Your task to perform on an android device: open app "Microsoft Excel" (install if not already installed), go to login, and select forgot password Image 0: 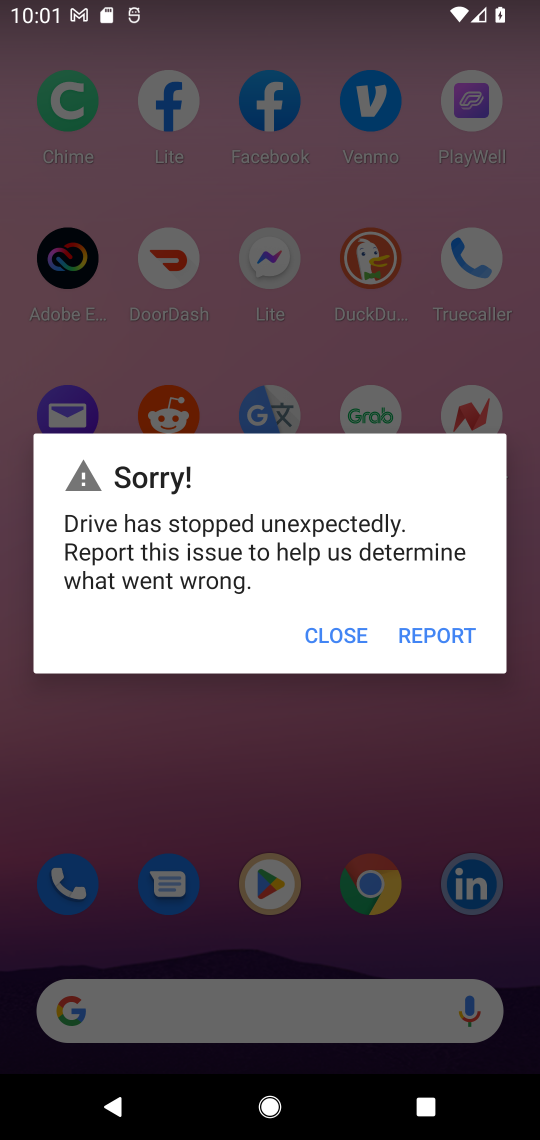
Step 0: click (309, 640)
Your task to perform on an android device: open app "Microsoft Excel" (install if not already installed), go to login, and select forgot password Image 1: 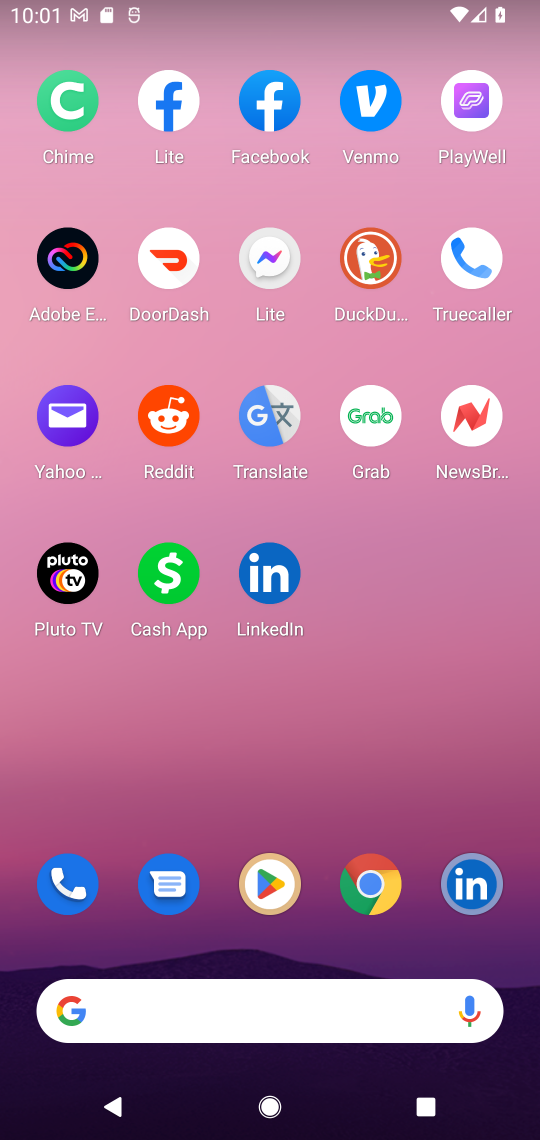
Step 1: click (259, 880)
Your task to perform on an android device: open app "Microsoft Excel" (install if not already installed), go to login, and select forgot password Image 2: 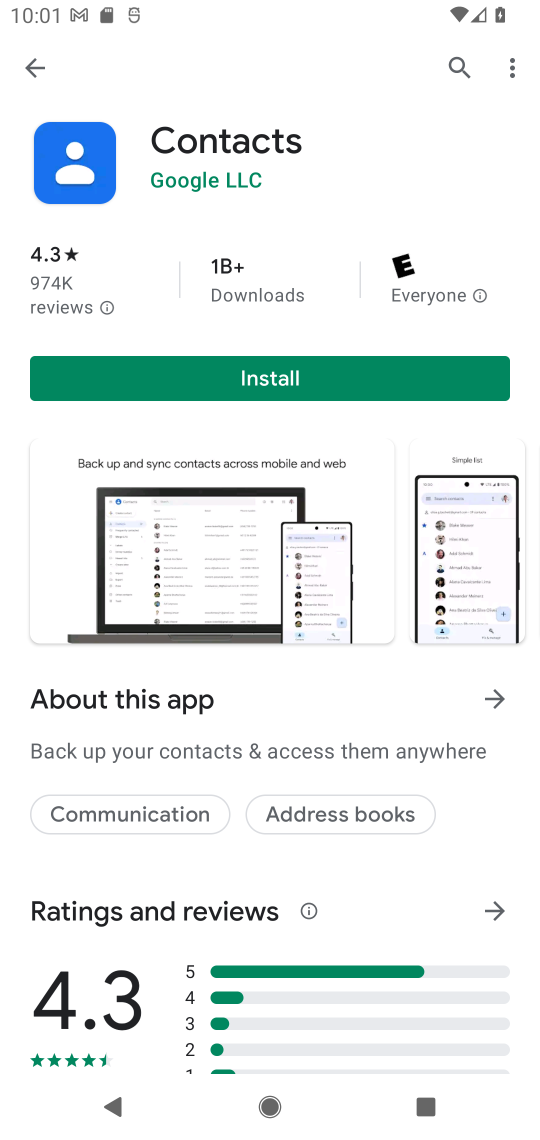
Step 2: click (405, 389)
Your task to perform on an android device: open app "Microsoft Excel" (install if not already installed), go to login, and select forgot password Image 3: 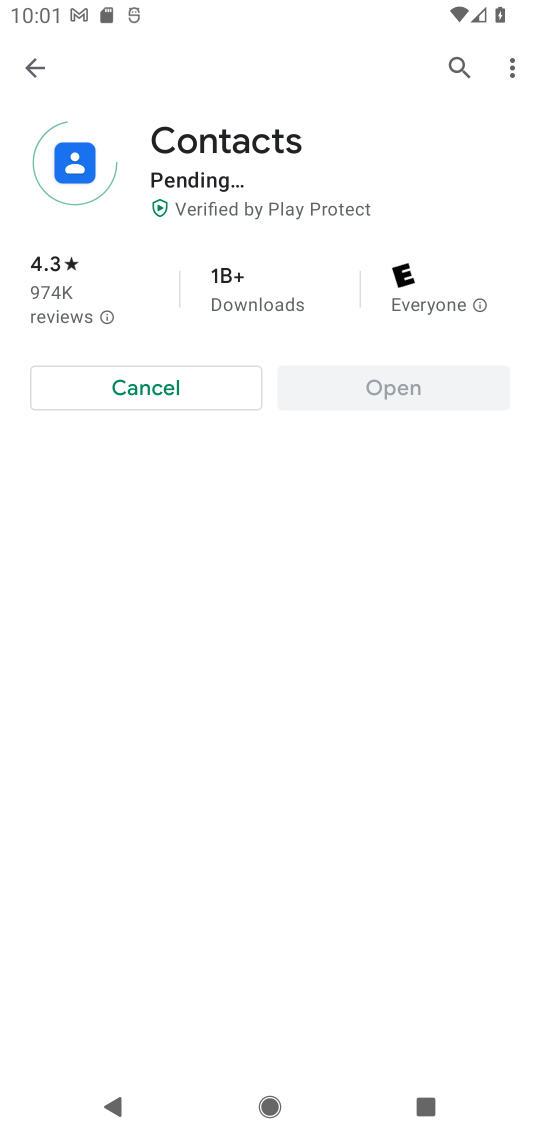
Step 3: click (458, 69)
Your task to perform on an android device: open app "Microsoft Excel" (install if not already installed), go to login, and select forgot password Image 4: 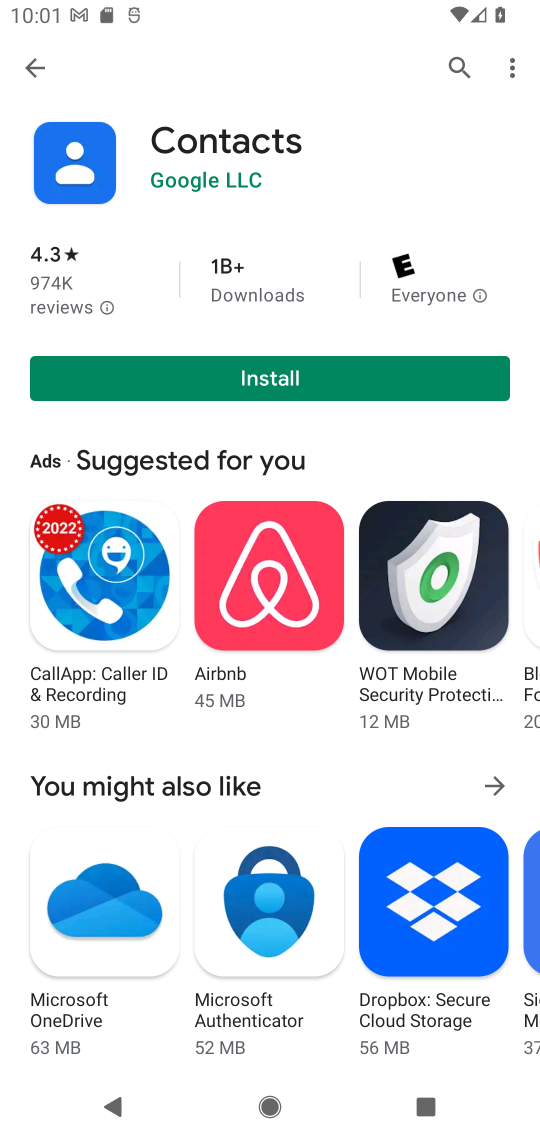
Step 4: click (467, 83)
Your task to perform on an android device: open app "Microsoft Excel" (install if not already installed), go to login, and select forgot password Image 5: 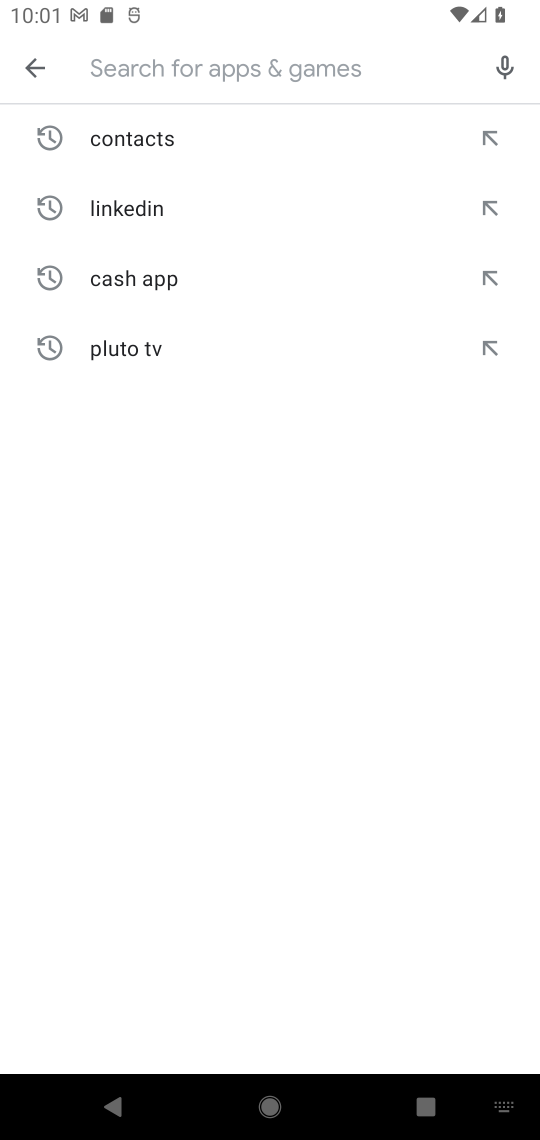
Step 5: type "microsoft excel"
Your task to perform on an android device: open app "Microsoft Excel" (install if not already installed), go to login, and select forgot password Image 6: 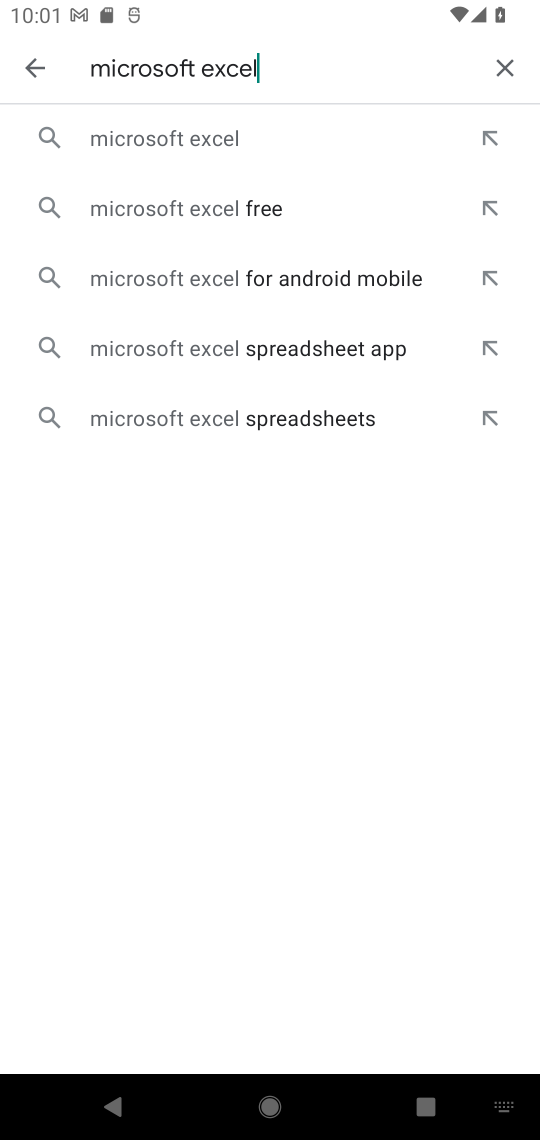
Step 6: click (175, 137)
Your task to perform on an android device: open app "Microsoft Excel" (install if not already installed), go to login, and select forgot password Image 7: 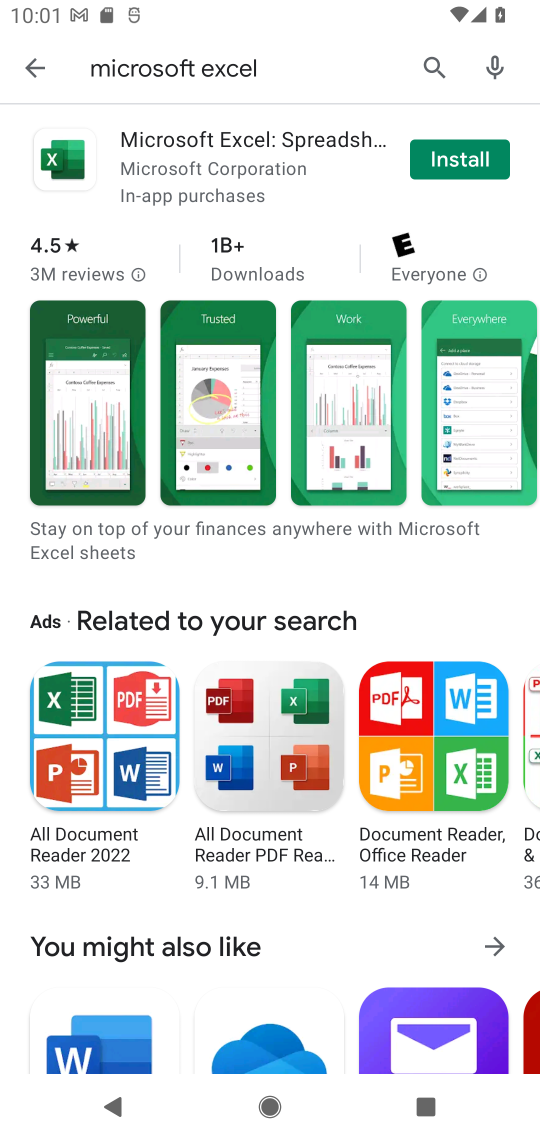
Step 7: click (439, 174)
Your task to perform on an android device: open app "Microsoft Excel" (install if not already installed), go to login, and select forgot password Image 8: 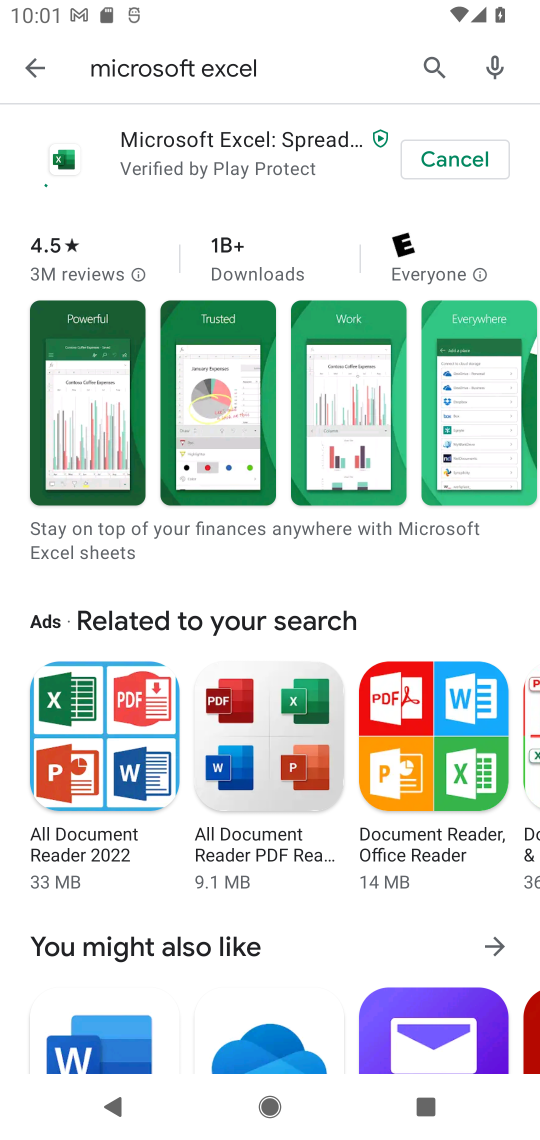
Step 8: task complete